Your task to perform on an android device: delete browsing data in the chrome app Image 0: 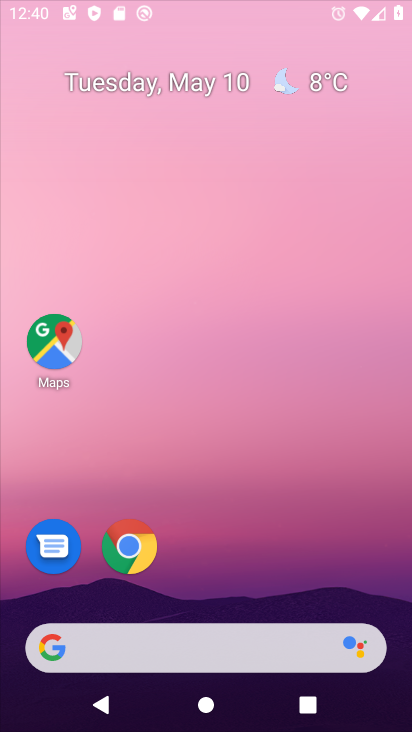
Step 0: drag from (272, 351) to (234, 3)
Your task to perform on an android device: delete browsing data in the chrome app Image 1: 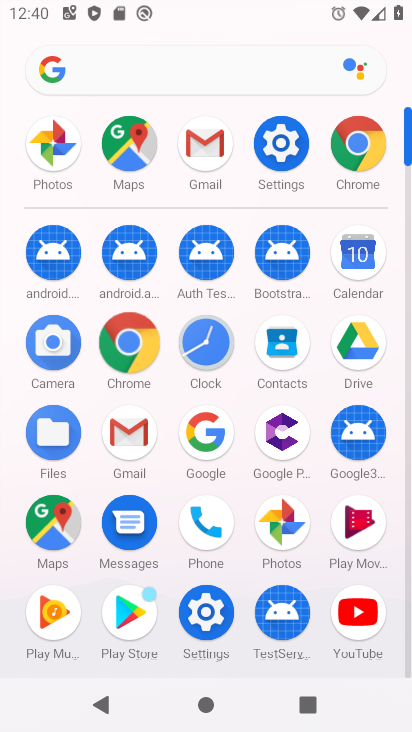
Step 1: click (358, 140)
Your task to perform on an android device: delete browsing data in the chrome app Image 2: 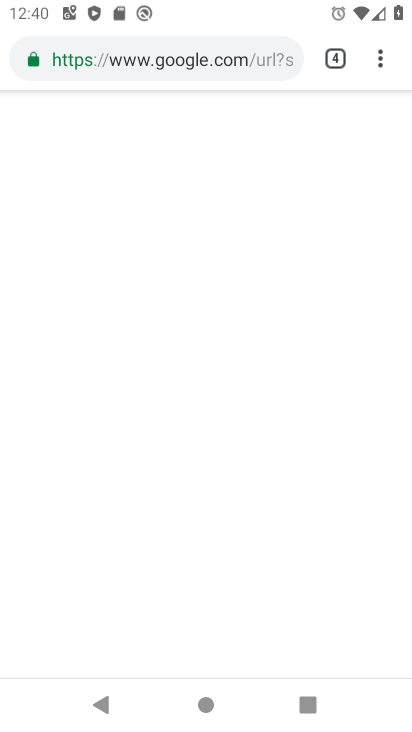
Step 2: click (376, 64)
Your task to perform on an android device: delete browsing data in the chrome app Image 3: 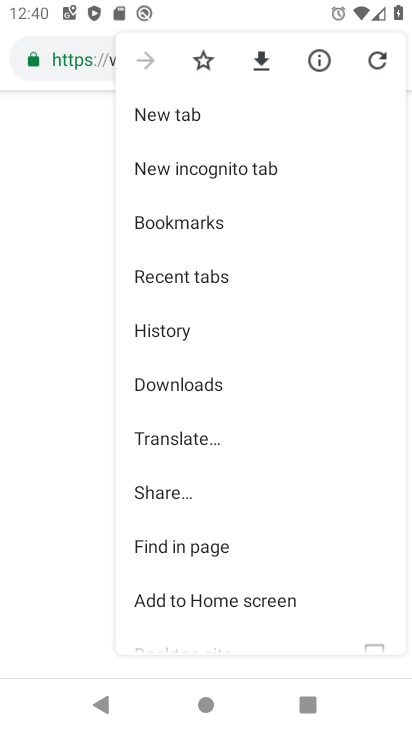
Step 3: click (163, 335)
Your task to perform on an android device: delete browsing data in the chrome app Image 4: 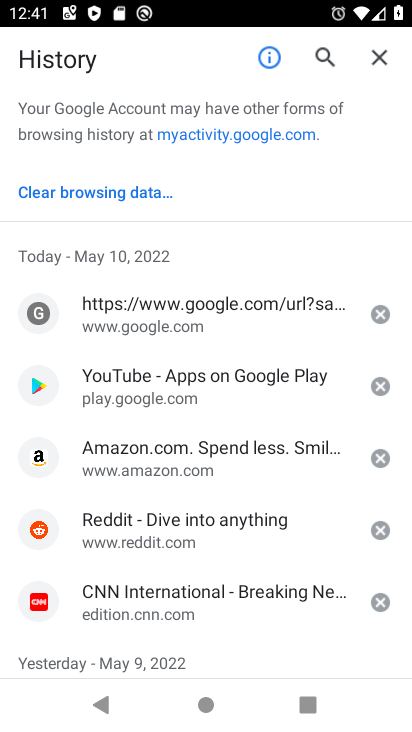
Step 4: click (383, 312)
Your task to perform on an android device: delete browsing data in the chrome app Image 5: 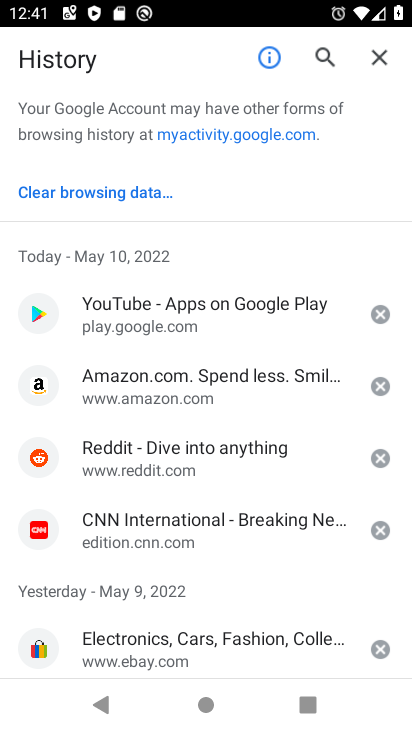
Step 5: task complete